Your task to perform on an android device: Open settings on Google Maps Image 0: 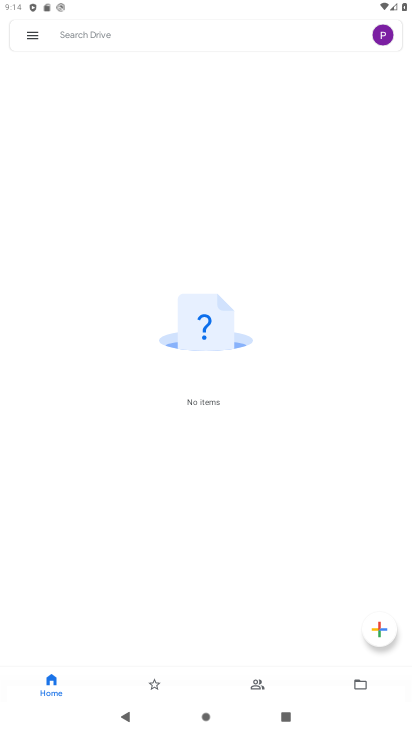
Step 0: press home button
Your task to perform on an android device: Open settings on Google Maps Image 1: 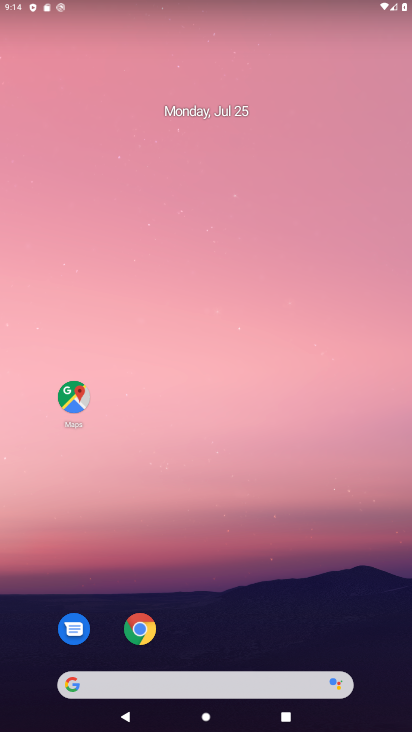
Step 1: drag from (282, 619) to (281, 71)
Your task to perform on an android device: Open settings on Google Maps Image 2: 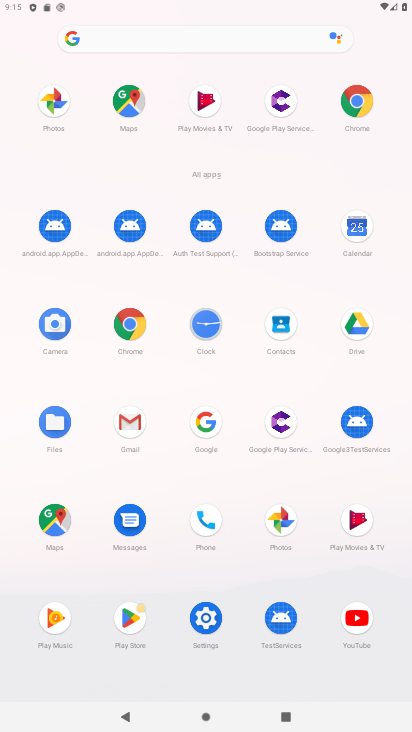
Step 2: click (130, 100)
Your task to perform on an android device: Open settings on Google Maps Image 3: 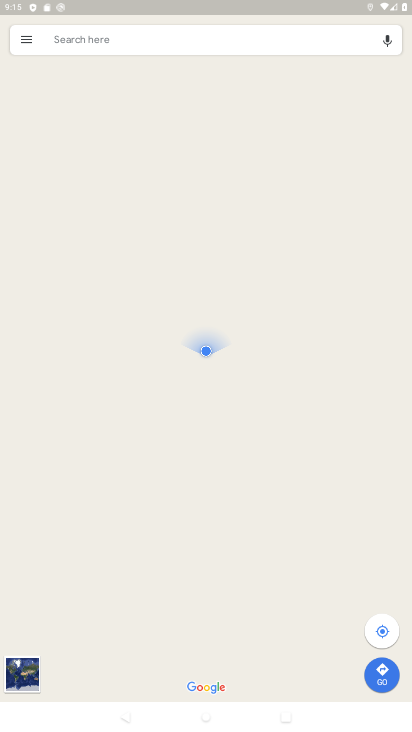
Step 3: click (23, 41)
Your task to perform on an android device: Open settings on Google Maps Image 4: 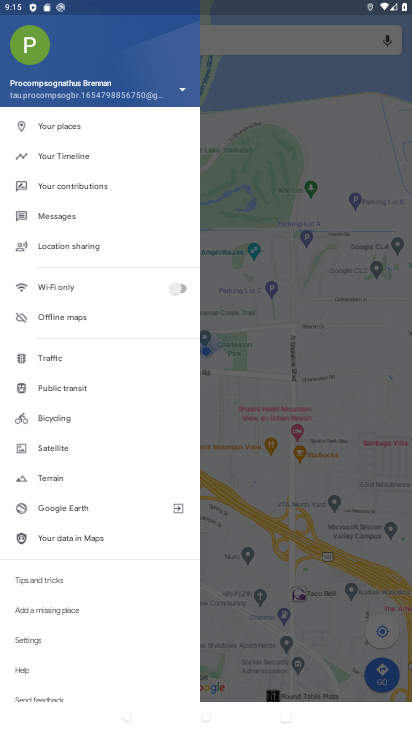
Step 4: click (28, 635)
Your task to perform on an android device: Open settings on Google Maps Image 5: 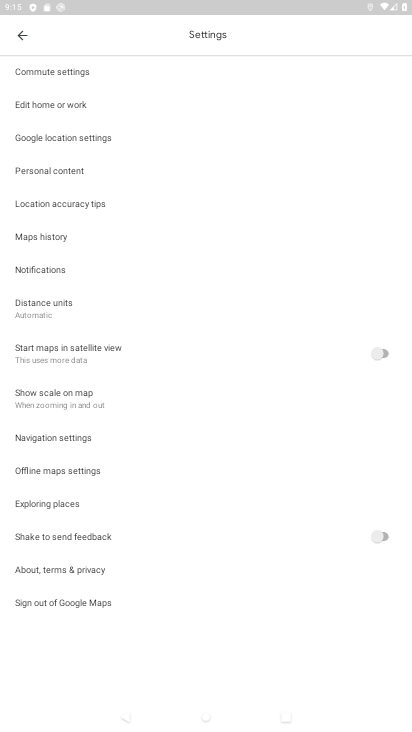
Step 5: task complete